Your task to perform on an android device: move an email to a new category in the gmail app Image 0: 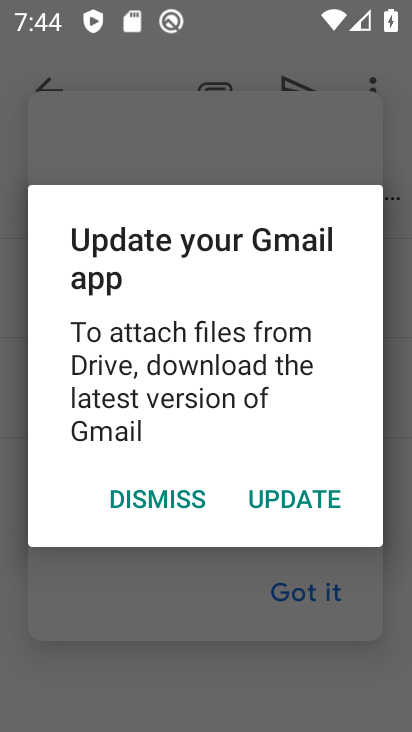
Step 0: press back button
Your task to perform on an android device: move an email to a new category in the gmail app Image 1: 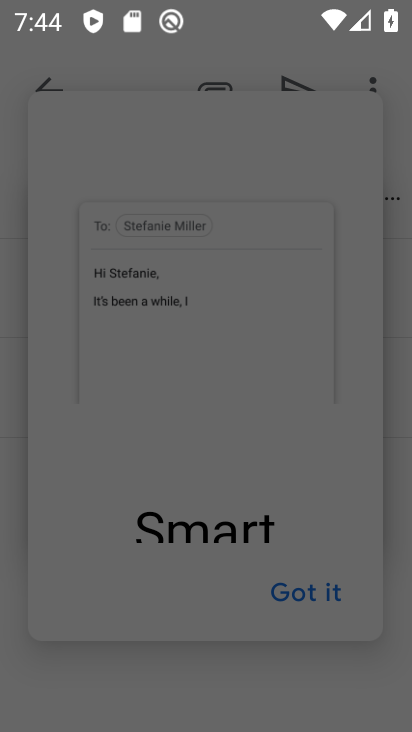
Step 1: press home button
Your task to perform on an android device: move an email to a new category in the gmail app Image 2: 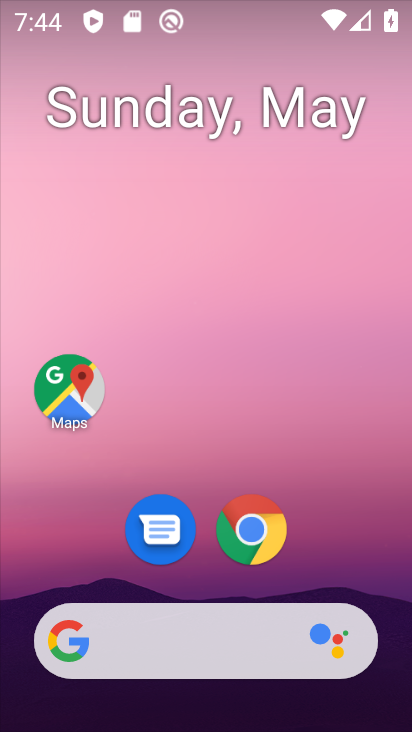
Step 2: drag from (197, 610) to (303, 15)
Your task to perform on an android device: move an email to a new category in the gmail app Image 3: 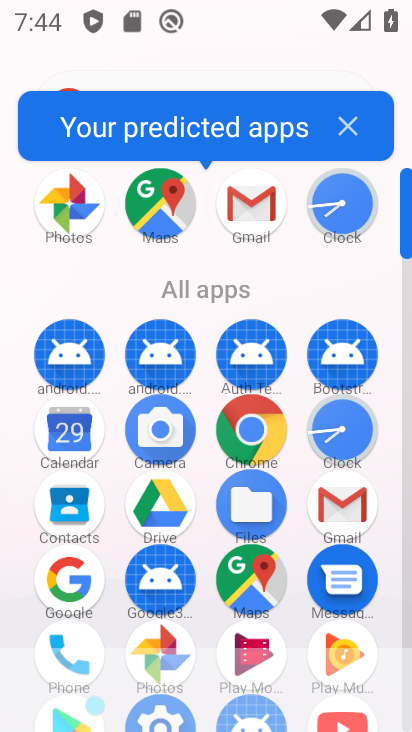
Step 3: click (250, 212)
Your task to perform on an android device: move an email to a new category in the gmail app Image 4: 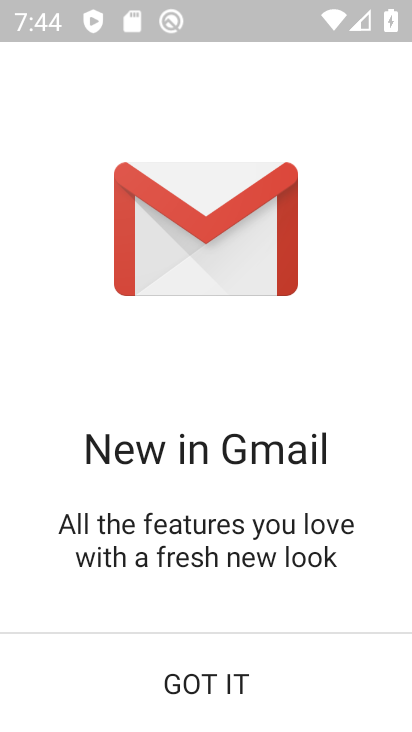
Step 4: click (196, 687)
Your task to perform on an android device: move an email to a new category in the gmail app Image 5: 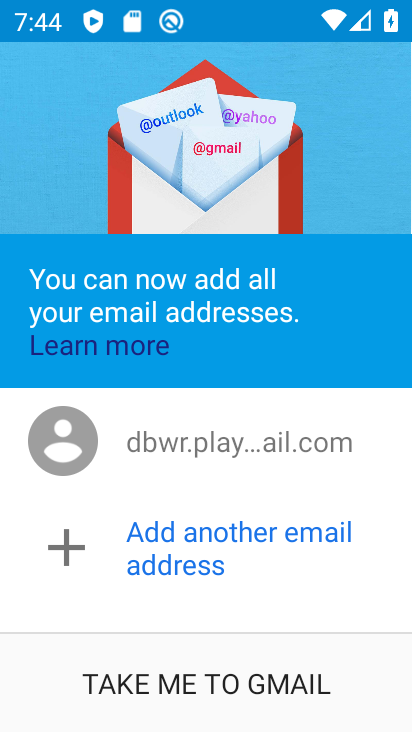
Step 5: click (197, 686)
Your task to perform on an android device: move an email to a new category in the gmail app Image 6: 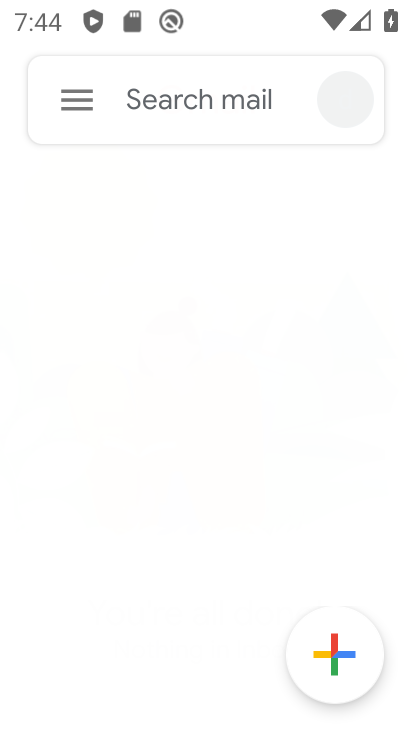
Step 6: click (67, 94)
Your task to perform on an android device: move an email to a new category in the gmail app Image 7: 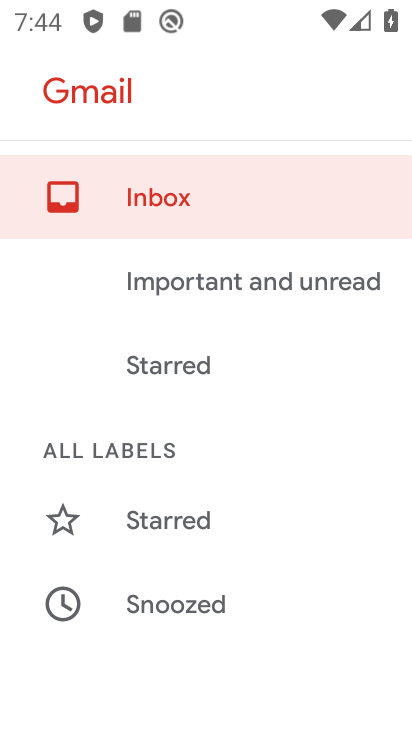
Step 7: drag from (180, 555) to (251, 83)
Your task to perform on an android device: move an email to a new category in the gmail app Image 8: 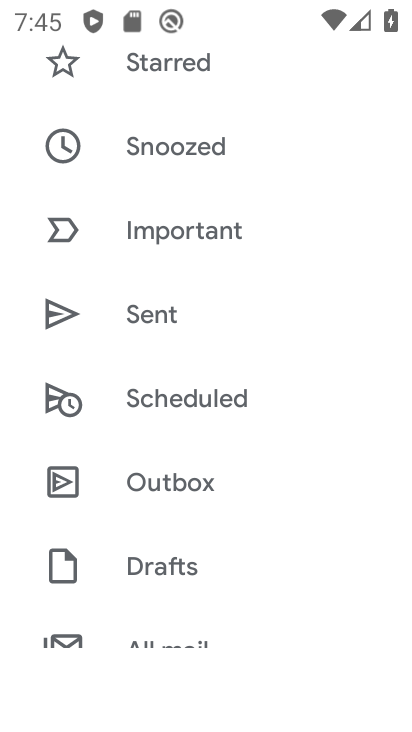
Step 8: drag from (206, 608) to (244, 109)
Your task to perform on an android device: move an email to a new category in the gmail app Image 9: 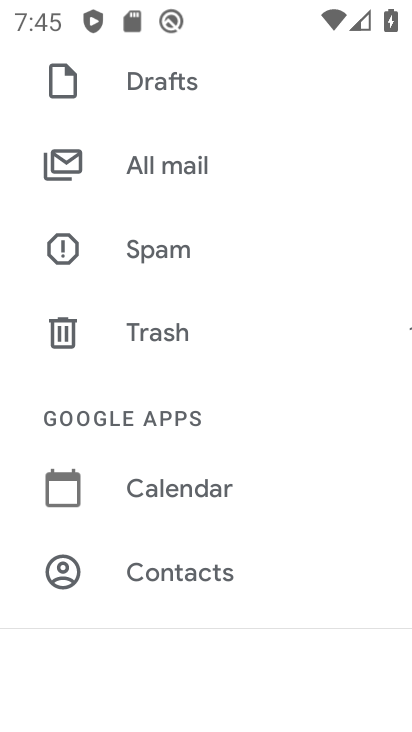
Step 9: click (164, 163)
Your task to perform on an android device: move an email to a new category in the gmail app Image 10: 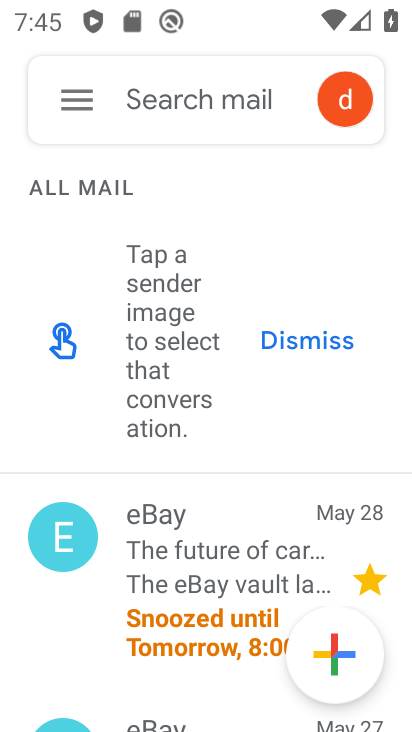
Step 10: drag from (204, 616) to (289, 279)
Your task to perform on an android device: move an email to a new category in the gmail app Image 11: 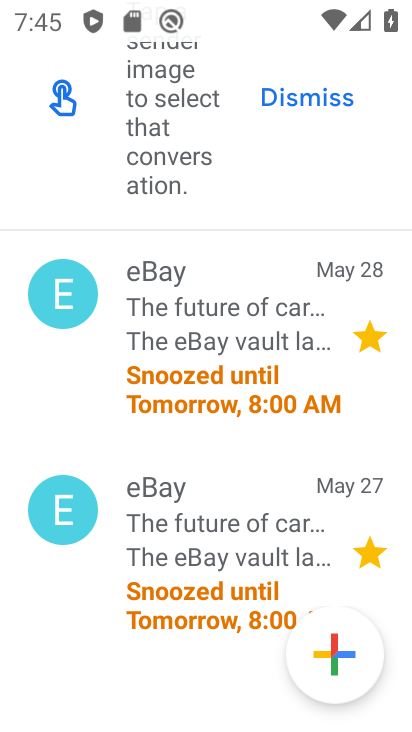
Step 11: click (189, 292)
Your task to perform on an android device: move an email to a new category in the gmail app Image 12: 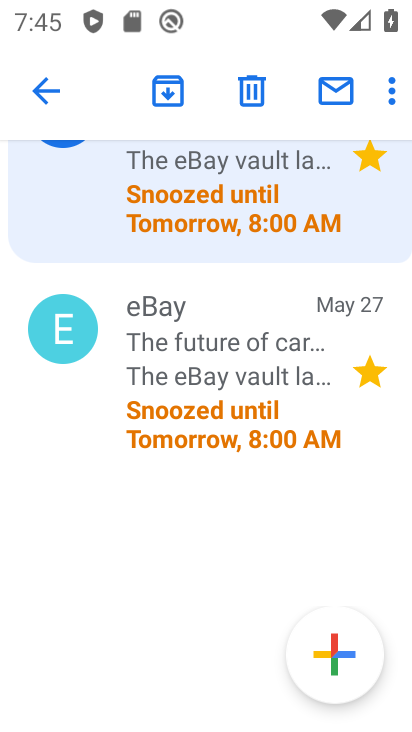
Step 12: click (386, 91)
Your task to perform on an android device: move an email to a new category in the gmail app Image 13: 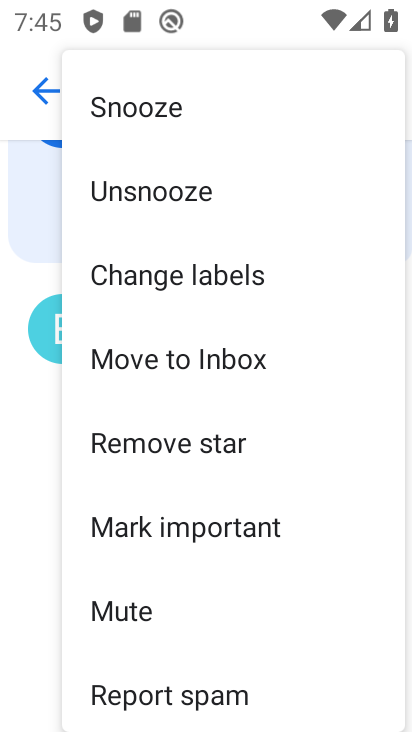
Step 13: click (207, 360)
Your task to perform on an android device: move an email to a new category in the gmail app Image 14: 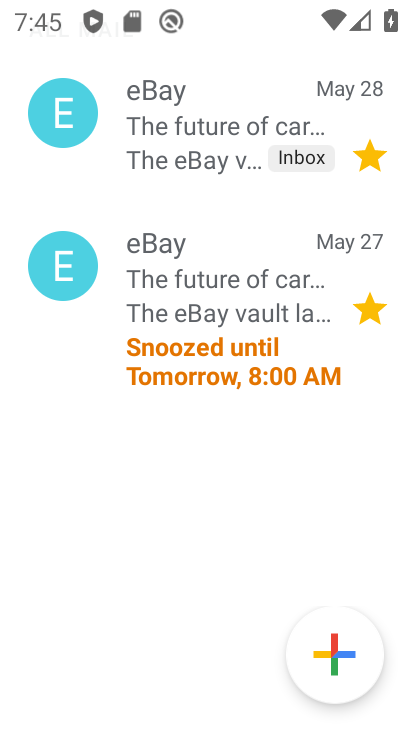
Step 14: task complete